Your task to perform on an android device: Open calendar and show me the third week of next month Image 0: 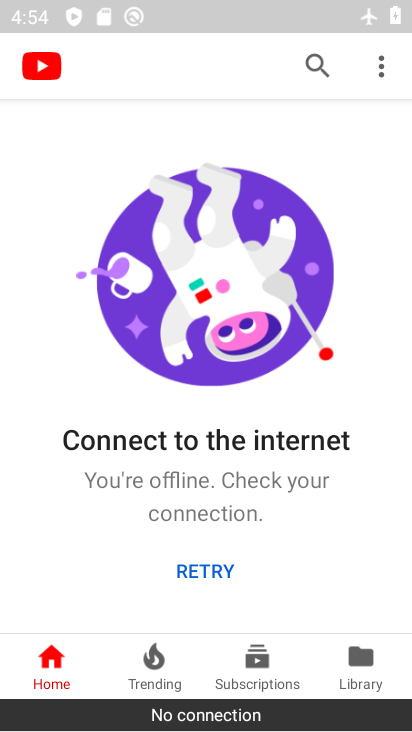
Step 0: press home button
Your task to perform on an android device: Open calendar and show me the third week of next month Image 1: 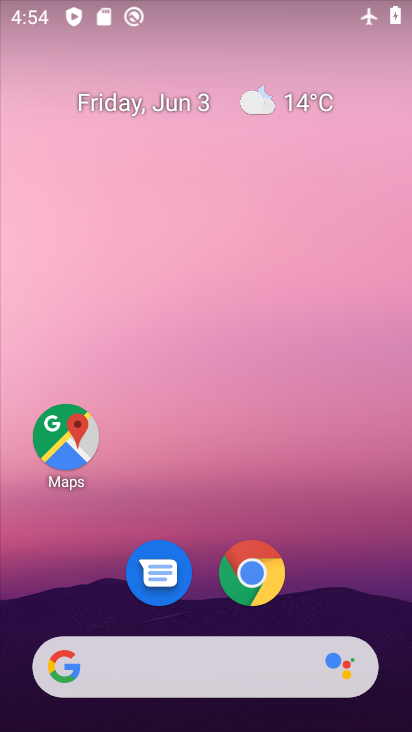
Step 1: drag from (371, 561) to (294, 49)
Your task to perform on an android device: Open calendar and show me the third week of next month Image 2: 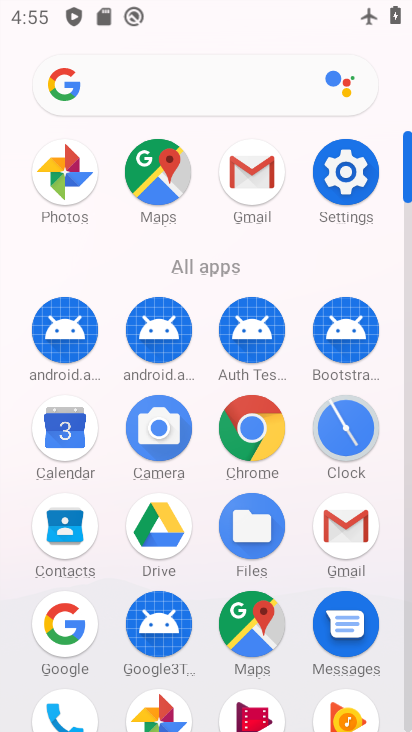
Step 2: click (54, 425)
Your task to perform on an android device: Open calendar and show me the third week of next month Image 3: 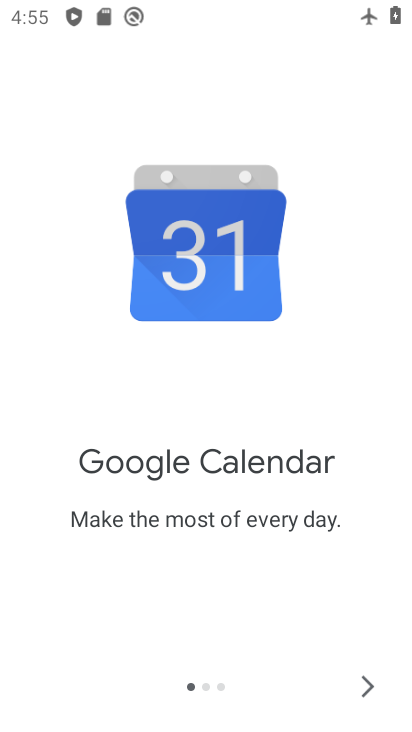
Step 3: click (355, 692)
Your task to perform on an android device: Open calendar and show me the third week of next month Image 4: 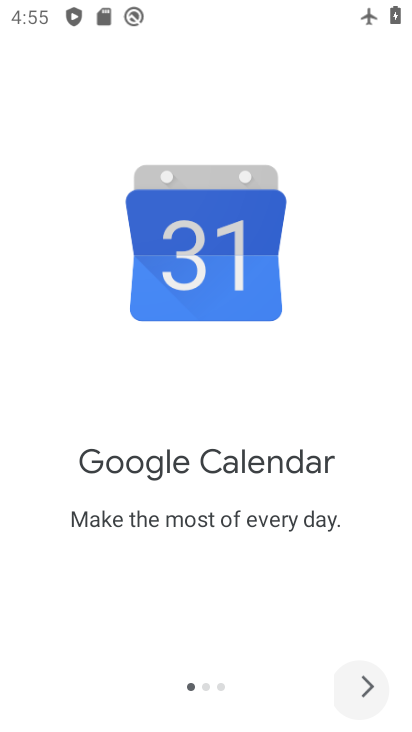
Step 4: click (355, 692)
Your task to perform on an android device: Open calendar and show me the third week of next month Image 5: 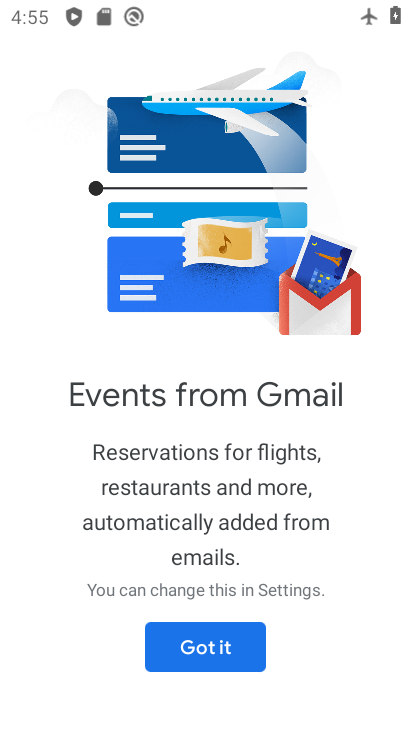
Step 5: click (215, 665)
Your task to perform on an android device: Open calendar and show me the third week of next month Image 6: 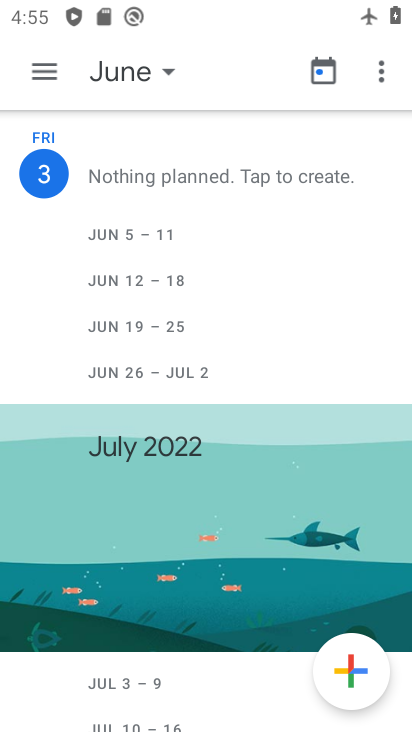
Step 6: drag from (218, 555) to (249, 275)
Your task to perform on an android device: Open calendar and show me the third week of next month Image 7: 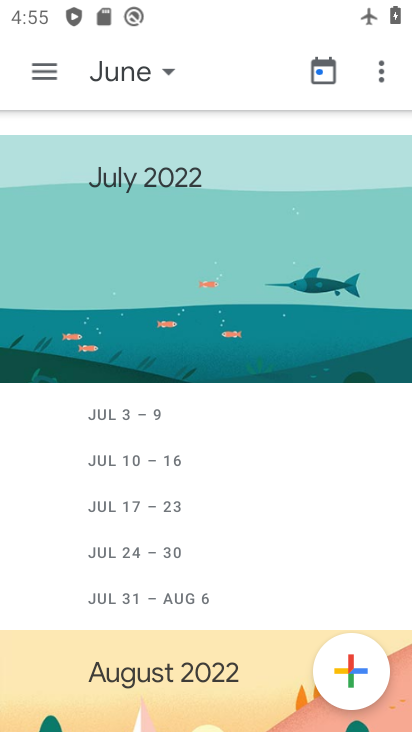
Step 7: click (39, 68)
Your task to perform on an android device: Open calendar and show me the third week of next month Image 8: 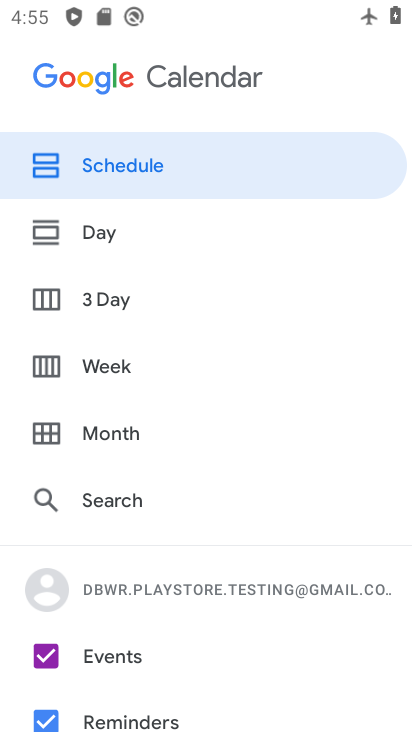
Step 8: click (108, 427)
Your task to perform on an android device: Open calendar and show me the third week of next month Image 9: 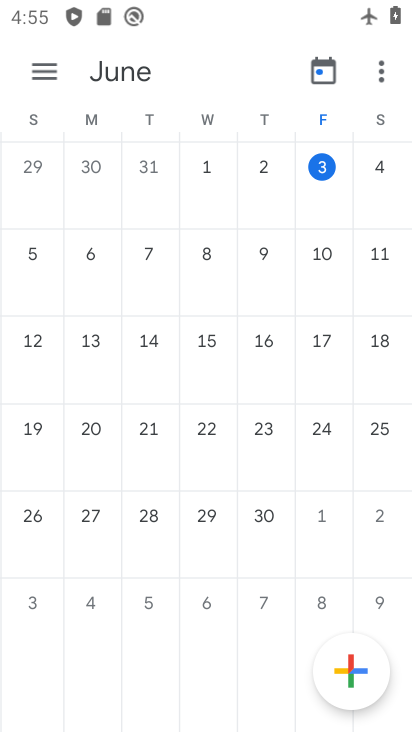
Step 9: task complete